Your task to perform on an android device: turn off improve location accuracy Image 0: 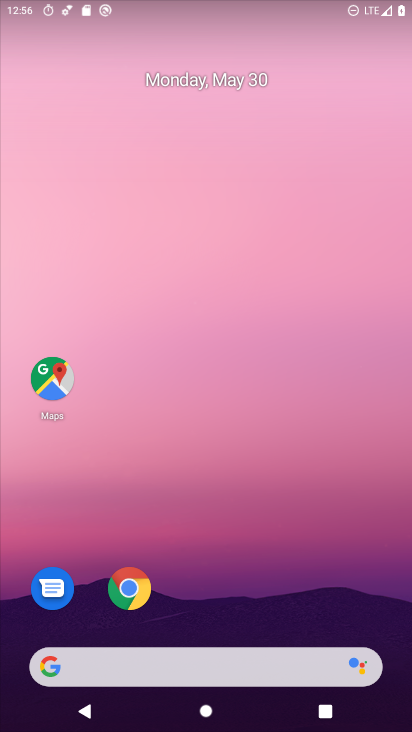
Step 0: drag from (270, 435) to (293, 116)
Your task to perform on an android device: turn off improve location accuracy Image 1: 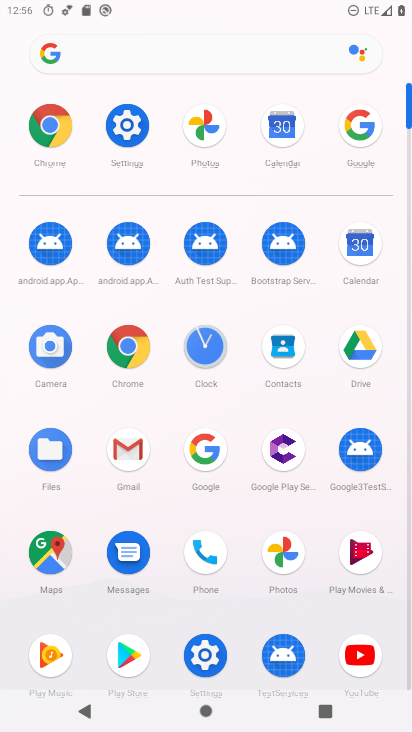
Step 1: click (213, 659)
Your task to perform on an android device: turn off improve location accuracy Image 2: 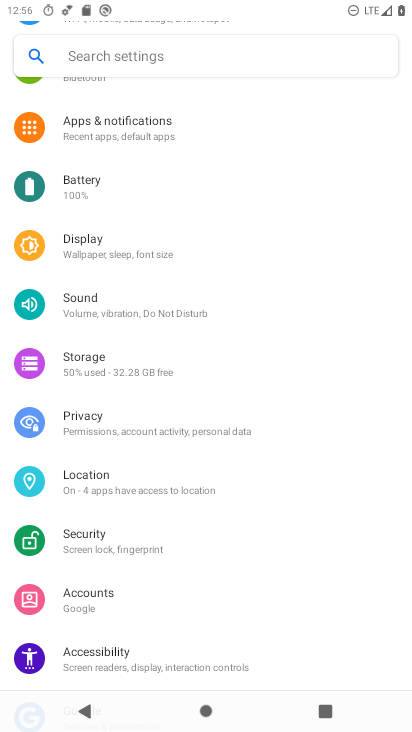
Step 2: click (195, 478)
Your task to perform on an android device: turn off improve location accuracy Image 3: 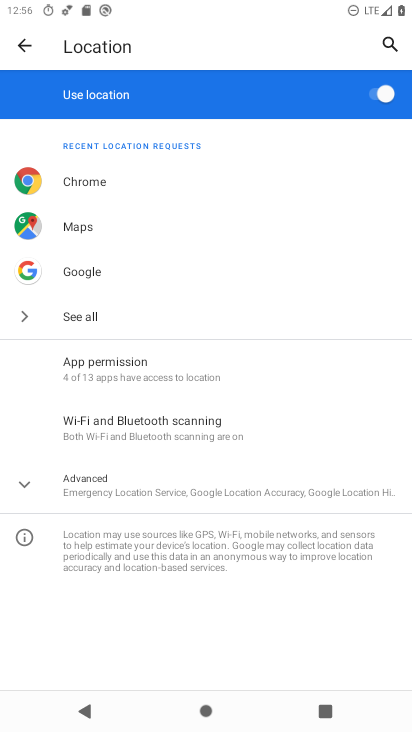
Step 3: click (153, 477)
Your task to perform on an android device: turn off improve location accuracy Image 4: 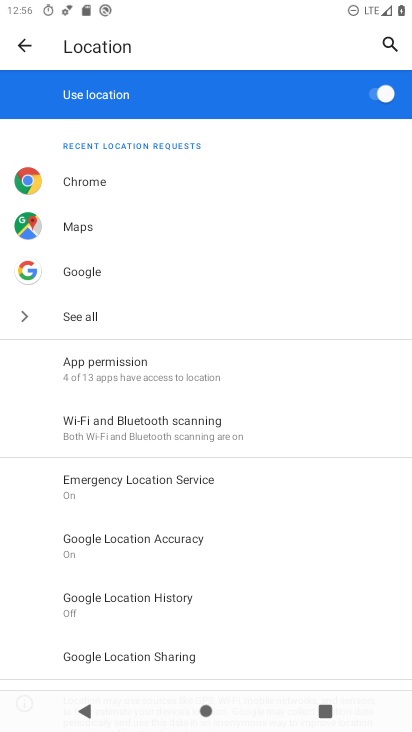
Step 4: click (187, 554)
Your task to perform on an android device: turn off improve location accuracy Image 5: 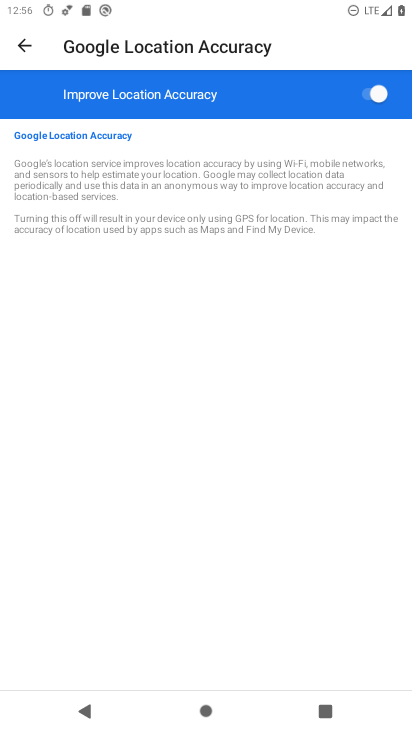
Step 5: click (371, 94)
Your task to perform on an android device: turn off improve location accuracy Image 6: 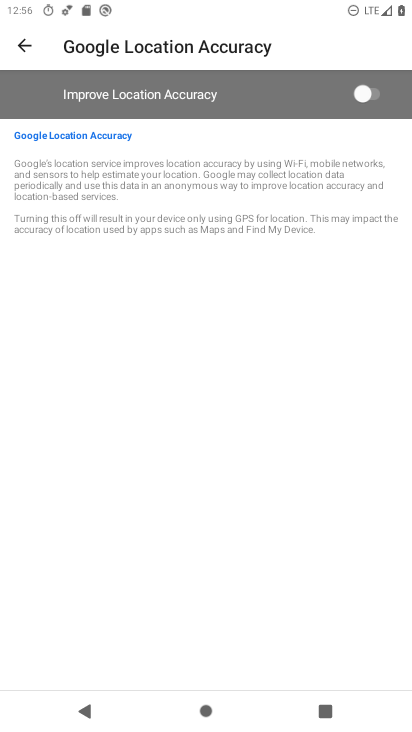
Step 6: task complete